Your task to perform on an android device: toggle wifi Image 0: 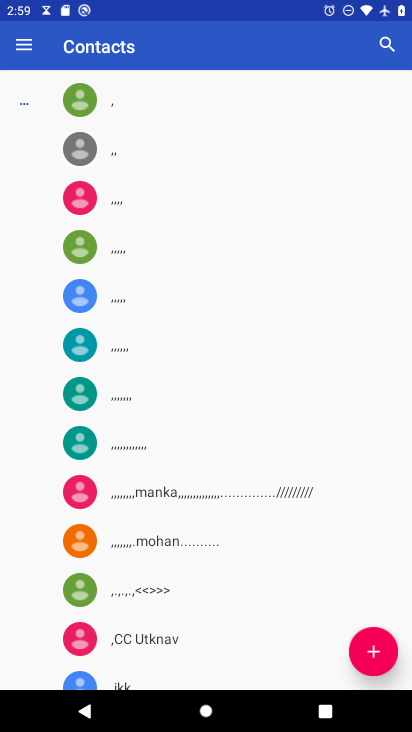
Step 0: press home button
Your task to perform on an android device: toggle wifi Image 1: 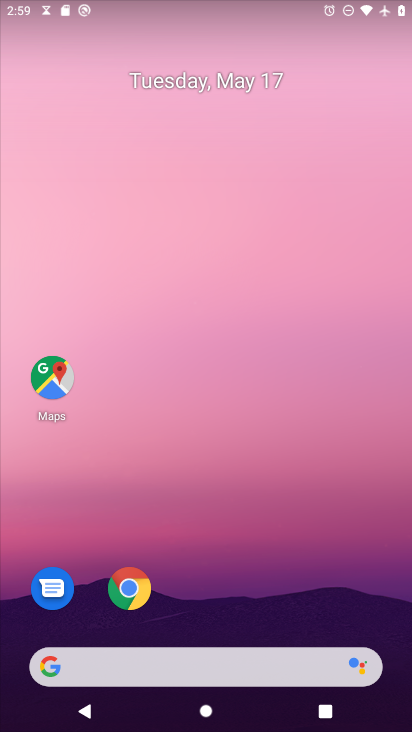
Step 1: drag from (175, 487) to (89, 169)
Your task to perform on an android device: toggle wifi Image 2: 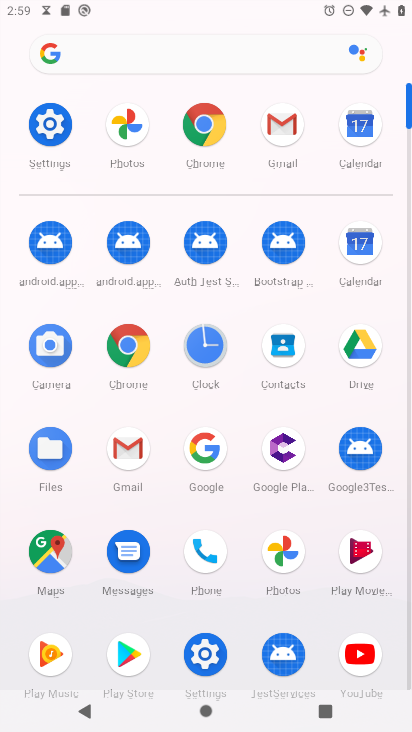
Step 2: click (70, 141)
Your task to perform on an android device: toggle wifi Image 3: 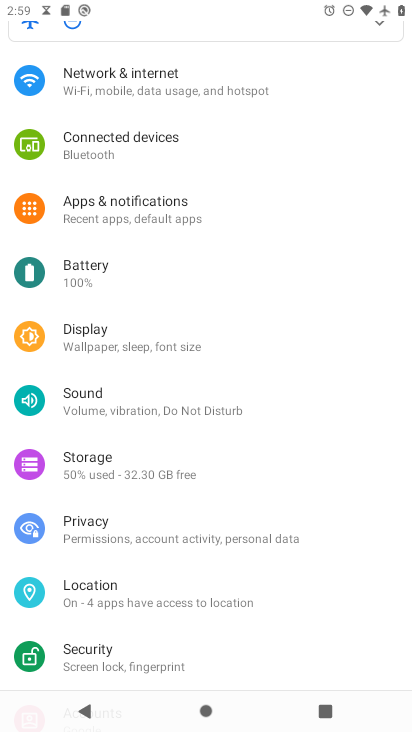
Step 3: click (72, 83)
Your task to perform on an android device: toggle wifi Image 4: 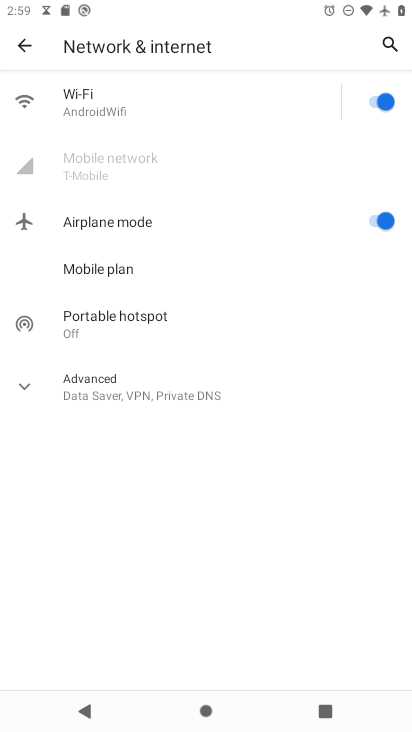
Step 4: click (388, 95)
Your task to perform on an android device: toggle wifi Image 5: 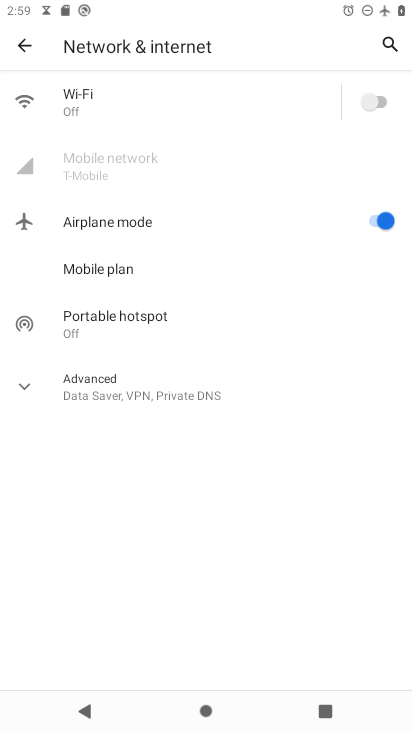
Step 5: task complete